Your task to perform on an android device: turn on sleep mode Image 0: 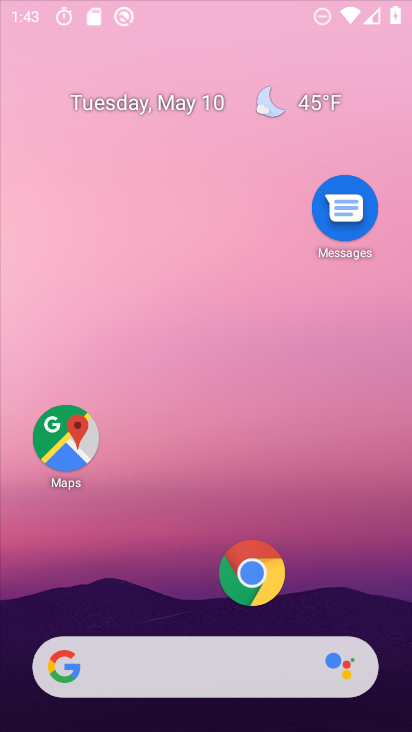
Step 0: drag from (242, 336) to (275, 74)
Your task to perform on an android device: turn on sleep mode Image 1: 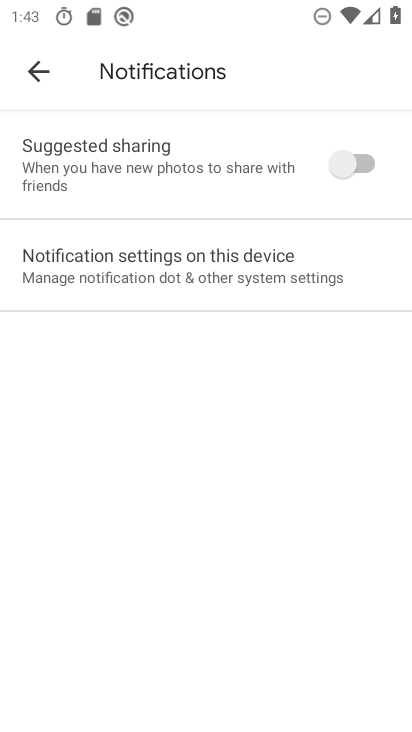
Step 1: drag from (200, 618) to (211, 284)
Your task to perform on an android device: turn on sleep mode Image 2: 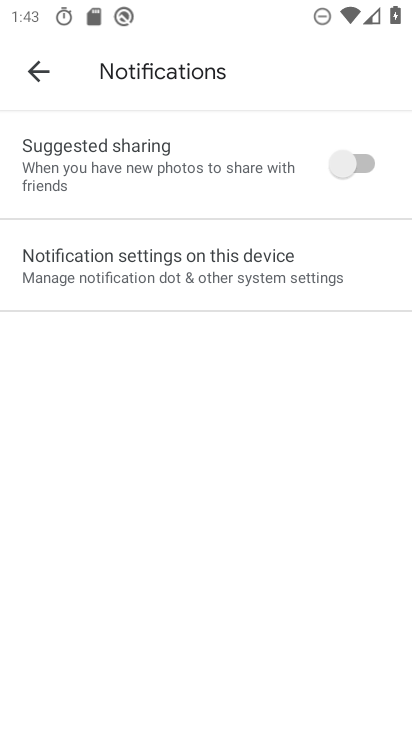
Step 2: drag from (180, 650) to (229, 340)
Your task to perform on an android device: turn on sleep mode Image 3: 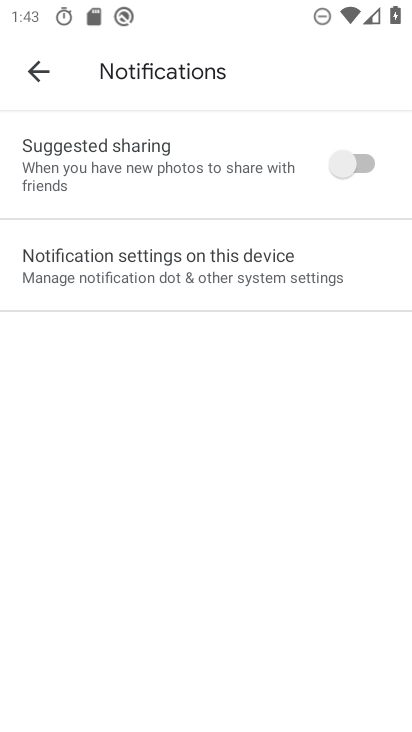
Step 3: press home button
Your task to perform on an android device: turn on sleep mode Image 4: 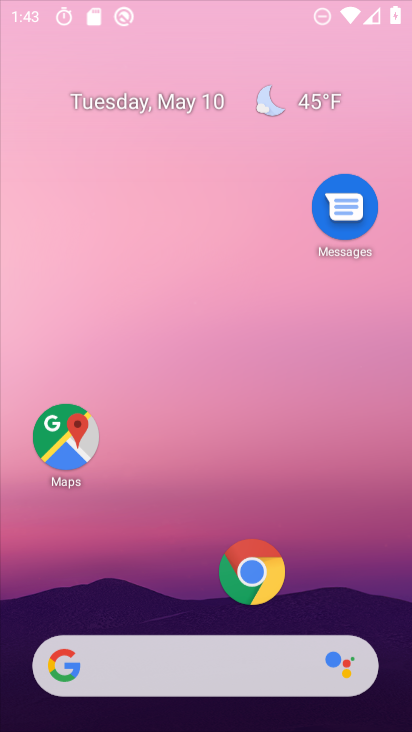
Step 4: drag from (210, 679) to (276, 256)
Your task to perform on an android device: turn on sleep mode Image 5: 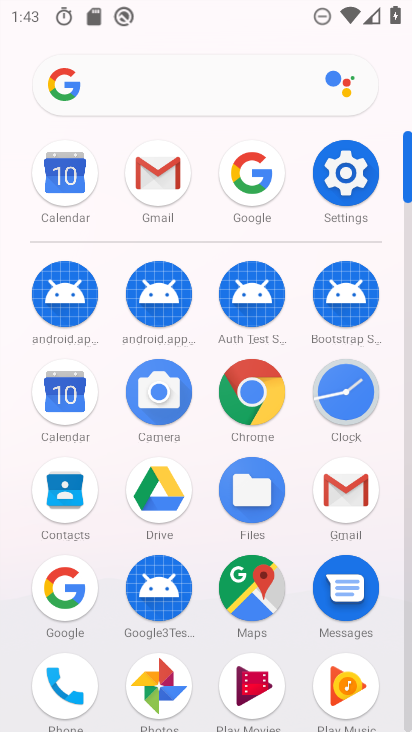
Step 5: click (347, 173)
Your task to perform on an android device: turn on sleep mode Image 6: 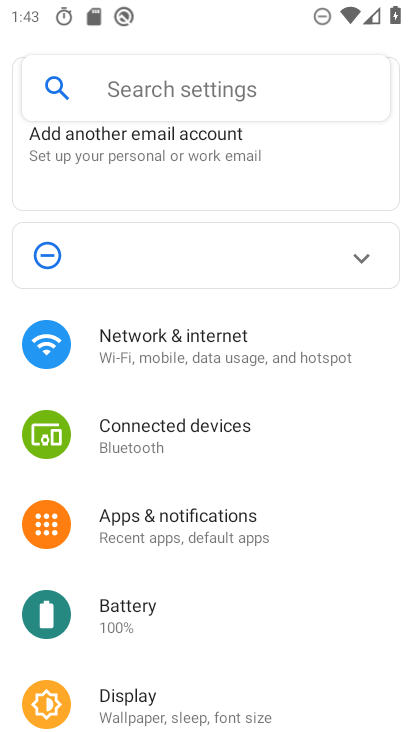
Step 6: drag from (231, 600) to (260, 190)
Your task to perform on an android device: turn on sleep mode Image 7: 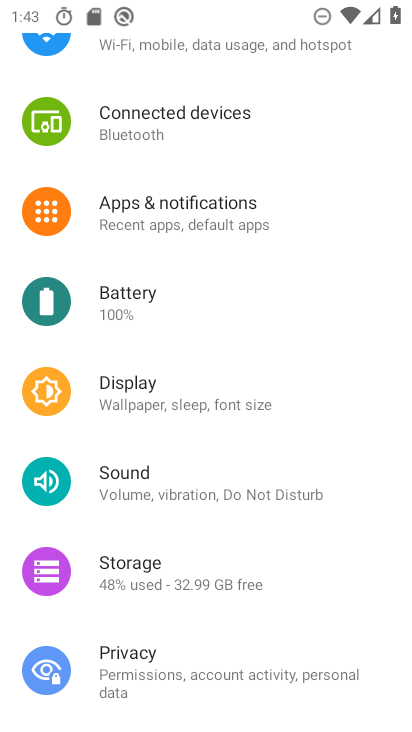
Step 7: drag from (227, 567) to (271, 281)
Your task to perform on an android device: turn on sleep mode Image 8: 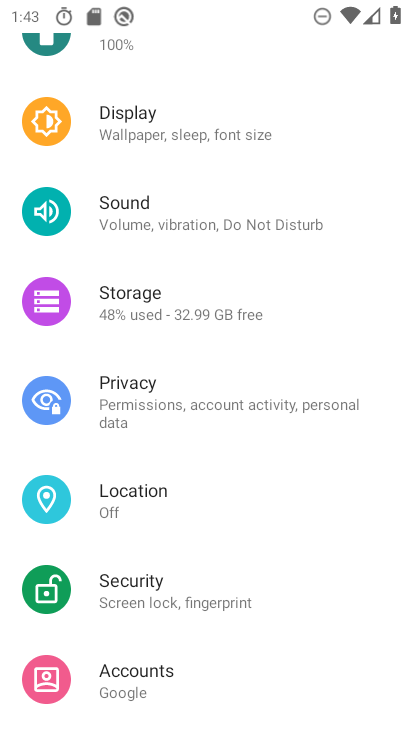
Step 8: drag from (207, 645) to (259, 289)
Your task to perform on an android device: turn on sleep mode Image 9: 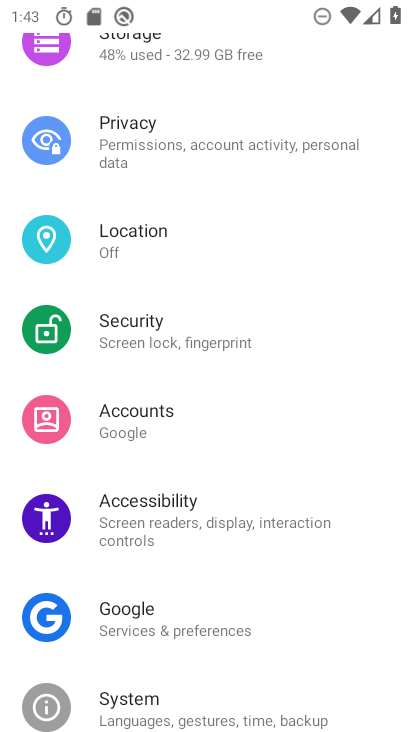
Step 9: drag from (269, 193) to (235, 714)
Your task to perform on an android device: turn on sleep mode Image 10: 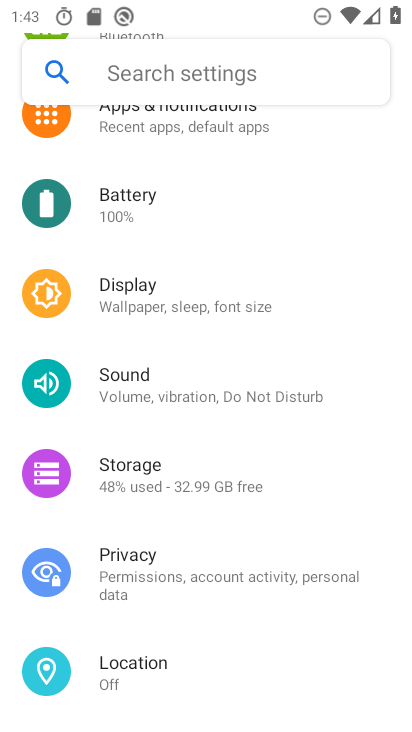
Step 10: click (181, 315)
Your task to perform on an android device: turn on sleep mode Image 11: 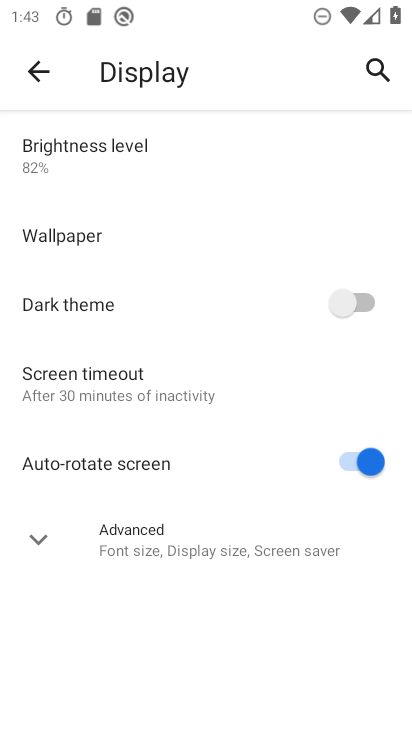
Step 11: click (115, 382)
Your task to perform on an android device: turn on sleep mode Image 12: 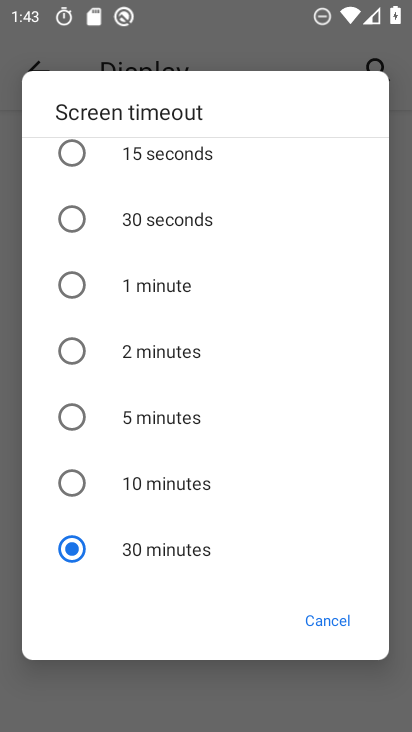
Step 12: task complete